Your task to perform on an android device: Open maps Image 0: 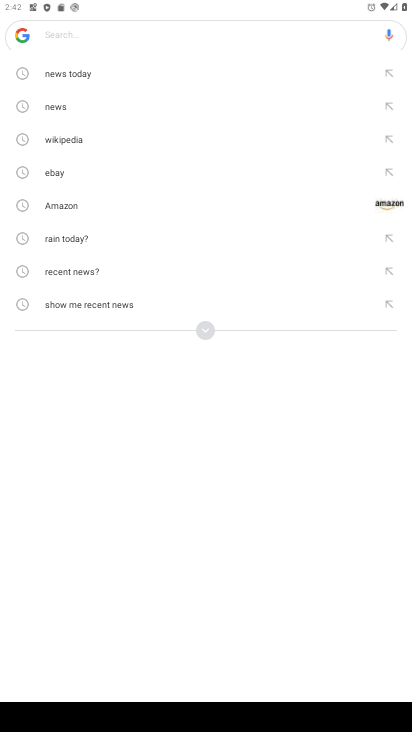
Step 0: press home button
Your task to perform on an android device: Open maps Image 1: 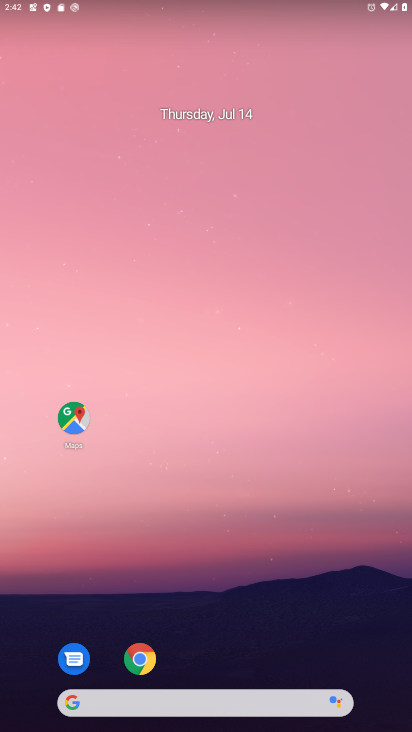
Step 1: drag from (247, 656) to (285, 263)
Your task to perform on an android device: Open maps Image 2: 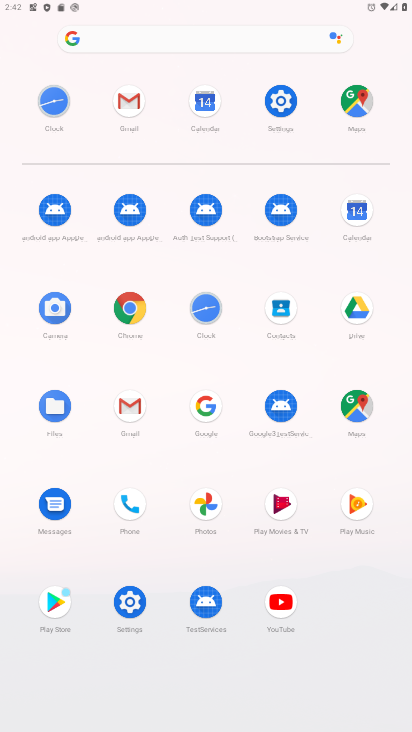
Step 2: click (349, 412)
Your task to perform on an android device: Open maps Image 3: 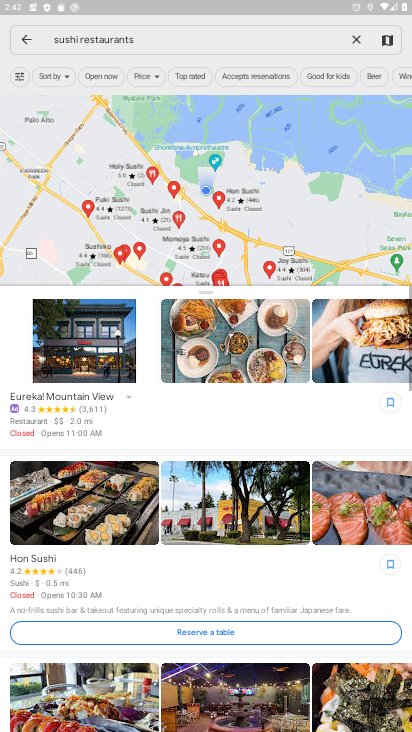
Step 3: click (353, 37)
Your task to perform on an android device: Open maps Image 4: 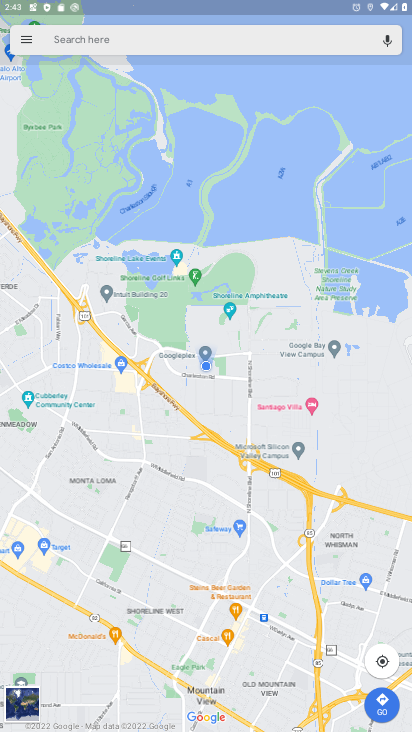
Step 4: press home button
Your task to perform on an android device: Open maps Image 5: 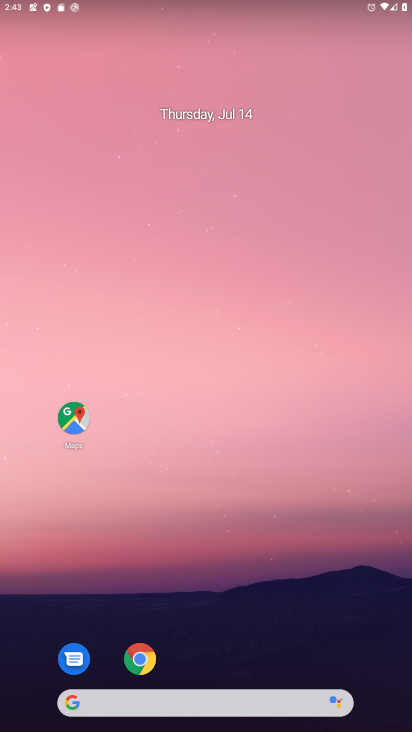
Step 5: drag from (268, 652) to (231, 5)
Your task to perform on an android device: Open maps Image 6: 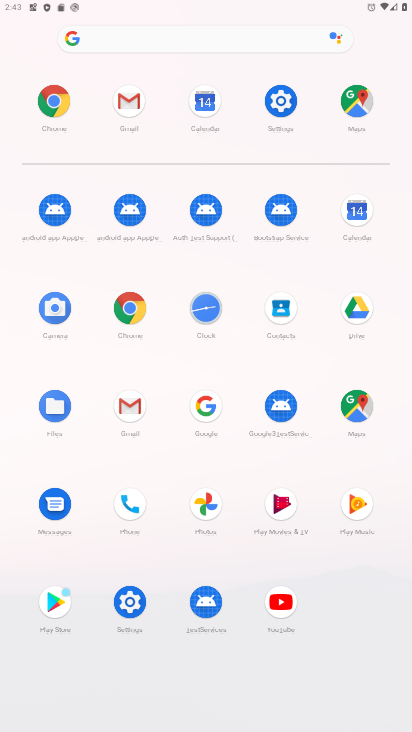
Step 6: click (362, 403)
Your task to perform on an android device: Open maps Image 7: 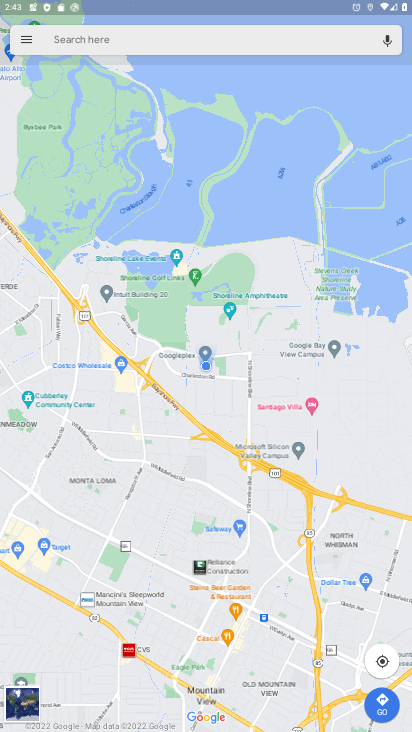
Step 7: task complete